Your task to perform on an android device: check the backup settings in the google photos Image 0: 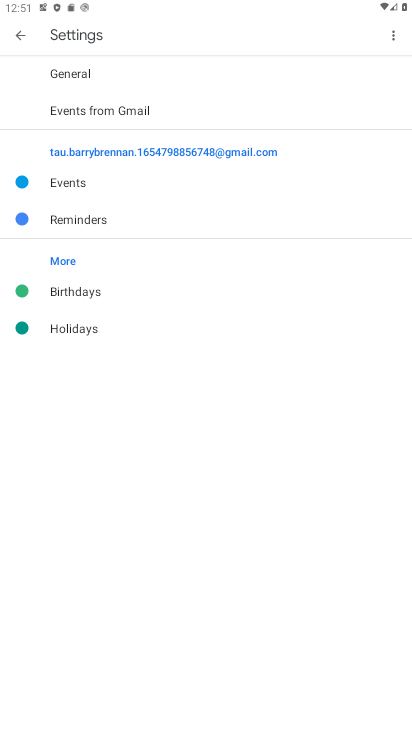
Step 0: press home button
Your task to perform on an android device: check the backup settings in the google photos Image 1: 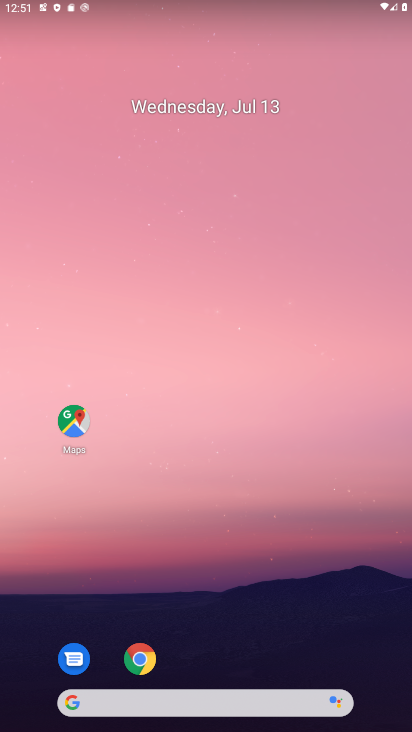
Step 1: drag from (198, 632) to (296, 142)
Your task to perform on an android device: check the backup settings in the google photos Image 2: 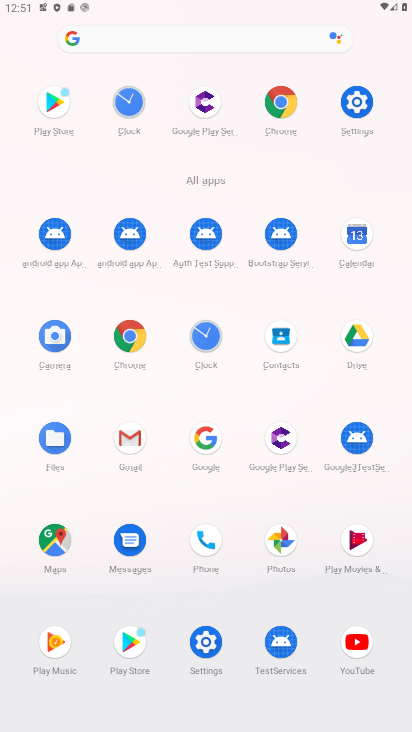
Step 2: click (281, 534)
Your task to perform on an android device: check the backup settings in the google photos Image 3: 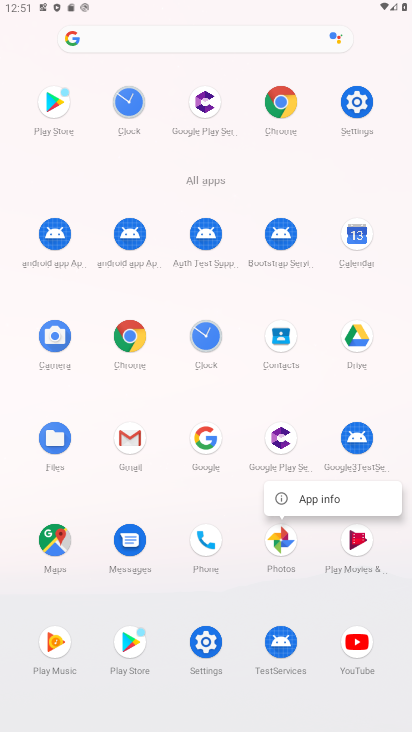
Step 3: click (310, 498)
Your task to perform on an android device: check the backup settings in the google photos Image 4: 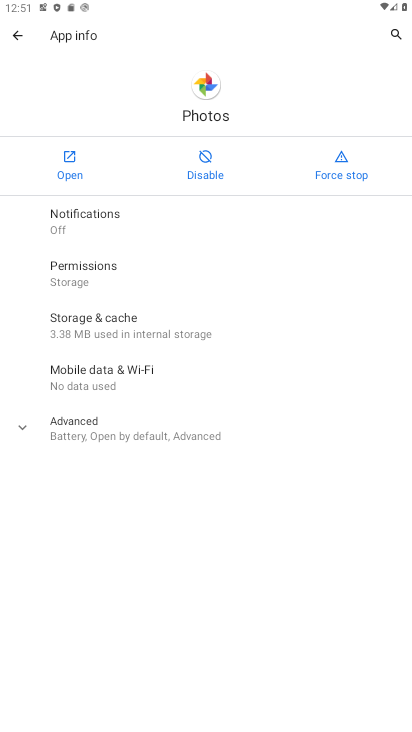
Step 4: click (68, 158)
Your task to perform on an android device: check the backup settings in the google photos Image 5: 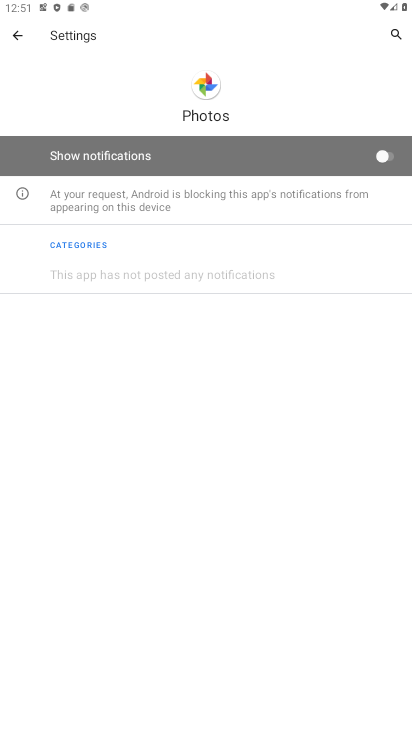
Step 5: drag from (214, 472) to (231, 330)
Your task to perform on an android device: check the backup settings in the google photos Image 6: 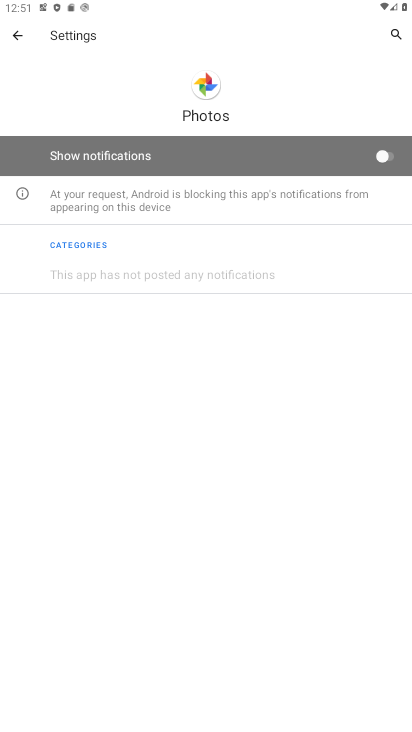
Step 6: drag from (121, 212) to (328, 544)
Your task to perform on an android device: check the backup settings in the google photos Image 7: 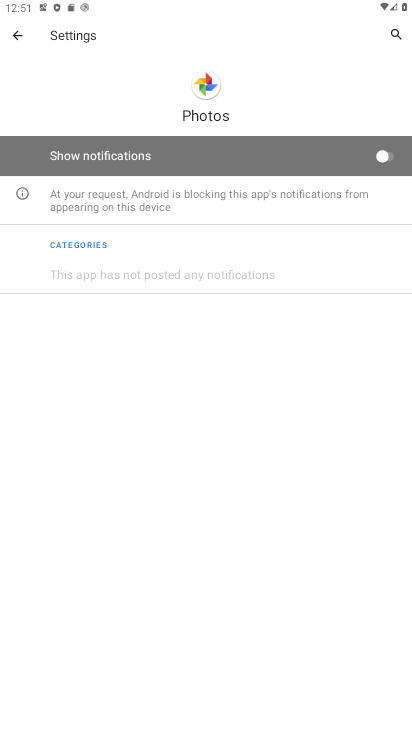
Step 7: drag from (239, 496) to (244, 415)
Your task to perform on an android device: check the backup settings in the google photos Image 8: 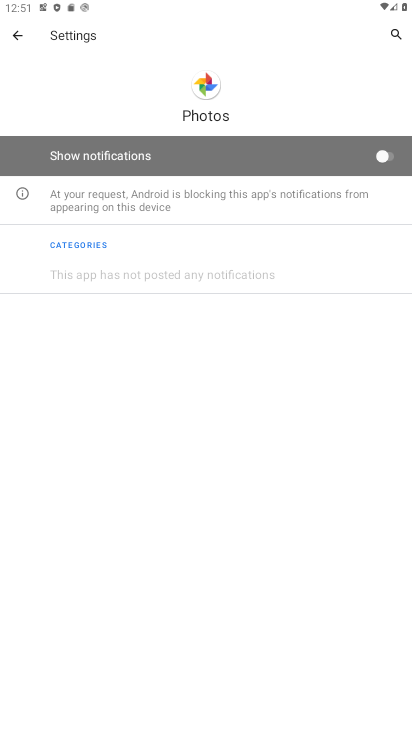
Step 8: click (205, 213)
Your task to perform on an android device: check the backup settings in the google photos Image 9: 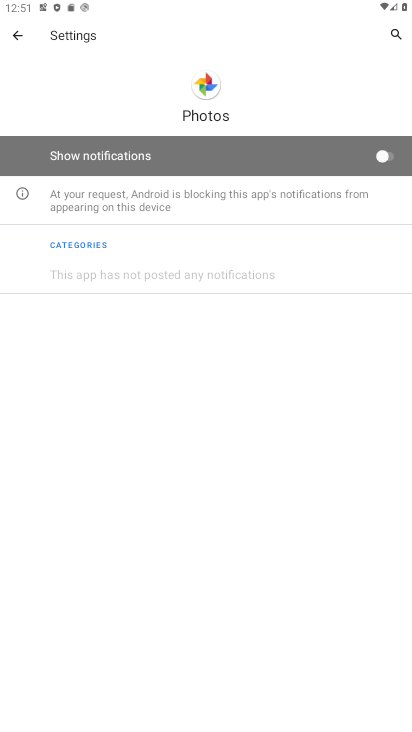
Step 9: click (205, 212)
Your task to perform on an android device: check the backup settings in the google photos Image 10: 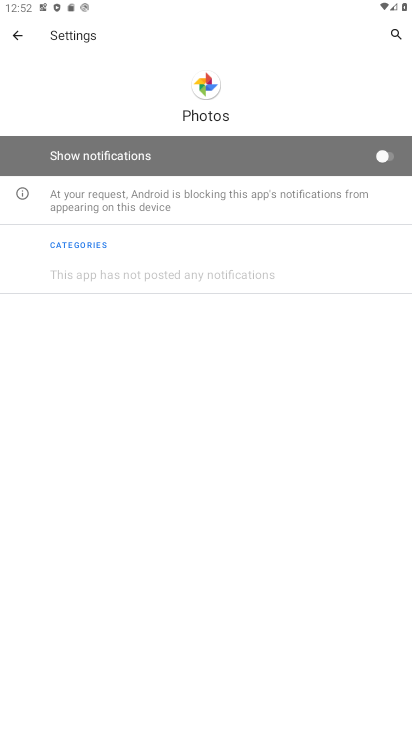
Step 10: click (17, 30)
Your task to perform on an android device: check the backup settings in the google photos Image 11: 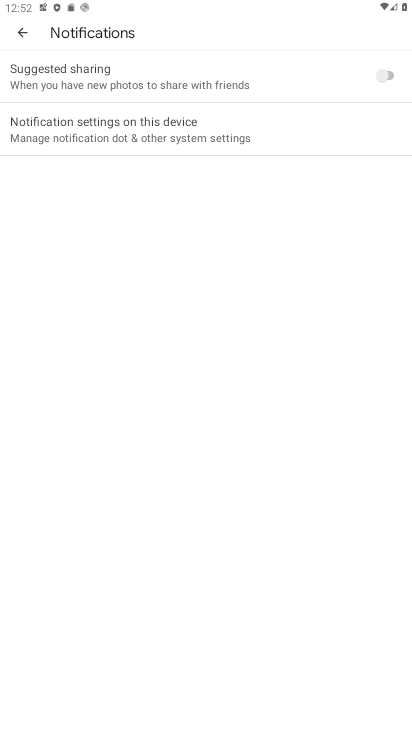
Step 11: click (20, 30)
Your task to perform on an android device: check the backup settings in the google photos Image 12: 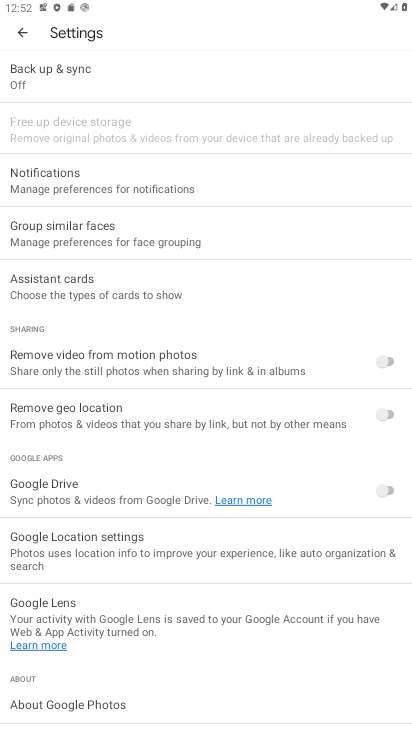
Step 12: drag from (150, 189) to (229, 708)
Your task to perform on an android device: check the backup settings in the google photos Image 13: 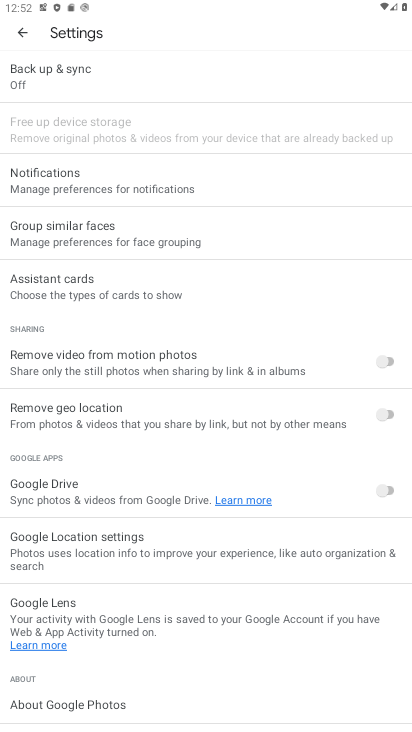
Step 13: click (18, 34)
Your task to perform on an android device: check the backup settings in the google photos Image 14: 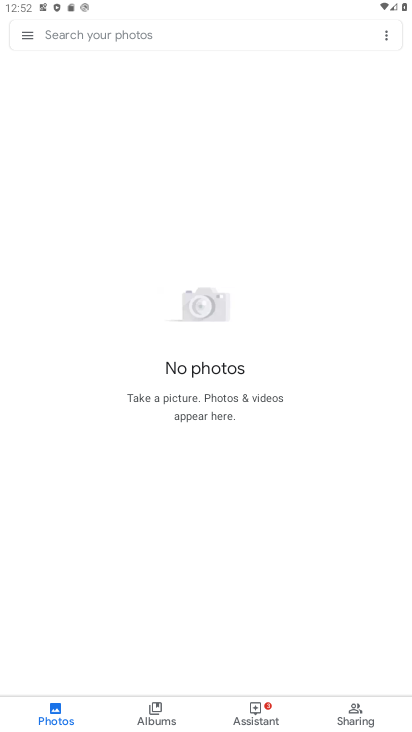
Step 14: drag from (143, 213) to (296, 552)
Your task to perform on an android device: check the backup settings in the google photos Image 15: 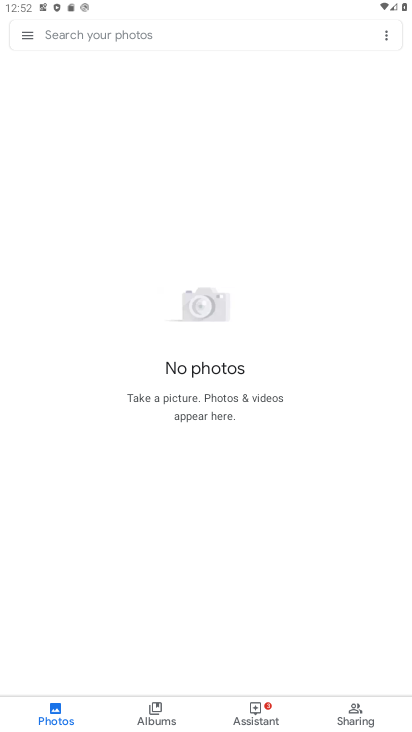
Step 15: drag from (228, 548) to (244, 307)
Your task to perform on an android device: check the backup settings in the google photos Image 16: 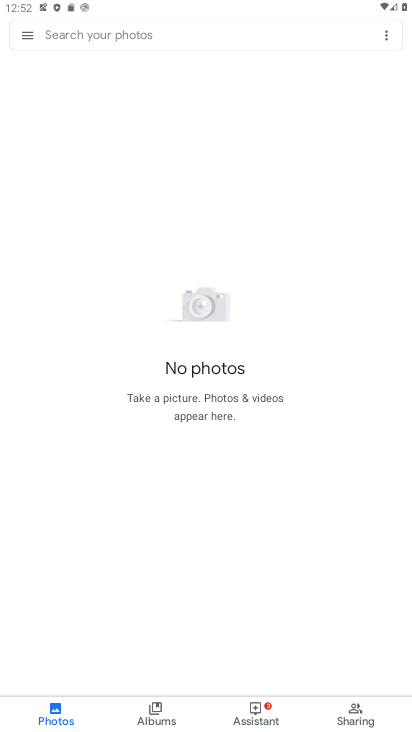
Step 16: drag from (229, 497) to (231, 130)
Your task to perform on an android device: check the backup settings in the google photos Image 17: 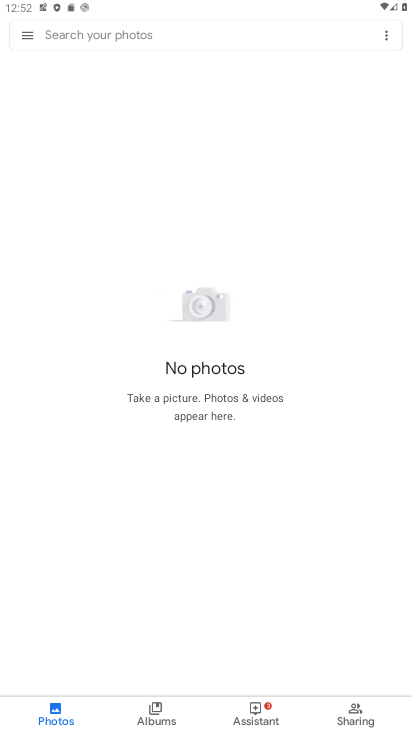
Step 17: click (22, 31)
Your task to perform on an android device: check the backup settings in the google photos Image 18: 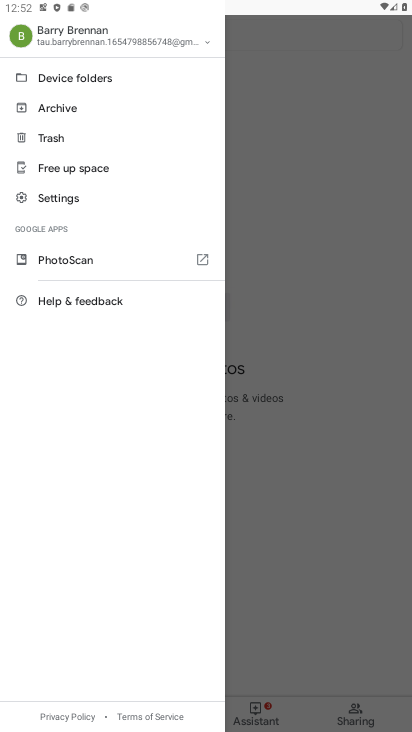
Step 18: click (76, 197)
Your task to perform on an android device: check the backup settings in the google photos Image 19: 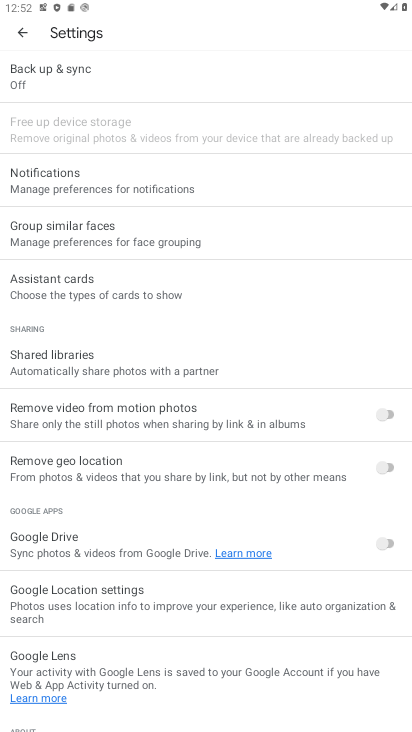
Step 19: click (93, 76)
Your task to perform on an android device: check the backup settings in the google photos Image 20: 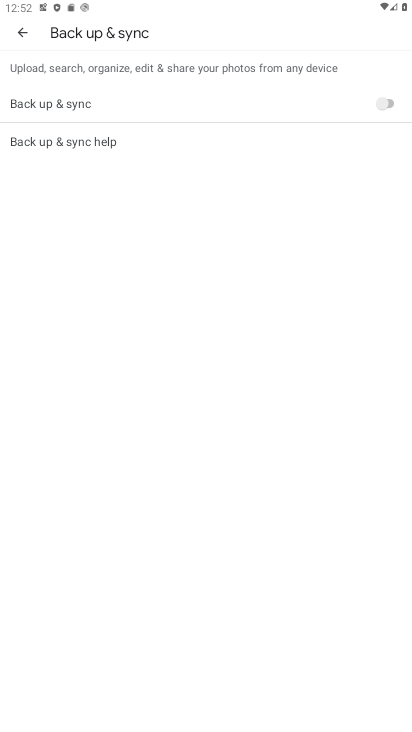
Step 20: task complete